Your task to perform on an android device: Show me the best rated 4K TV on Walmart. Image 0: 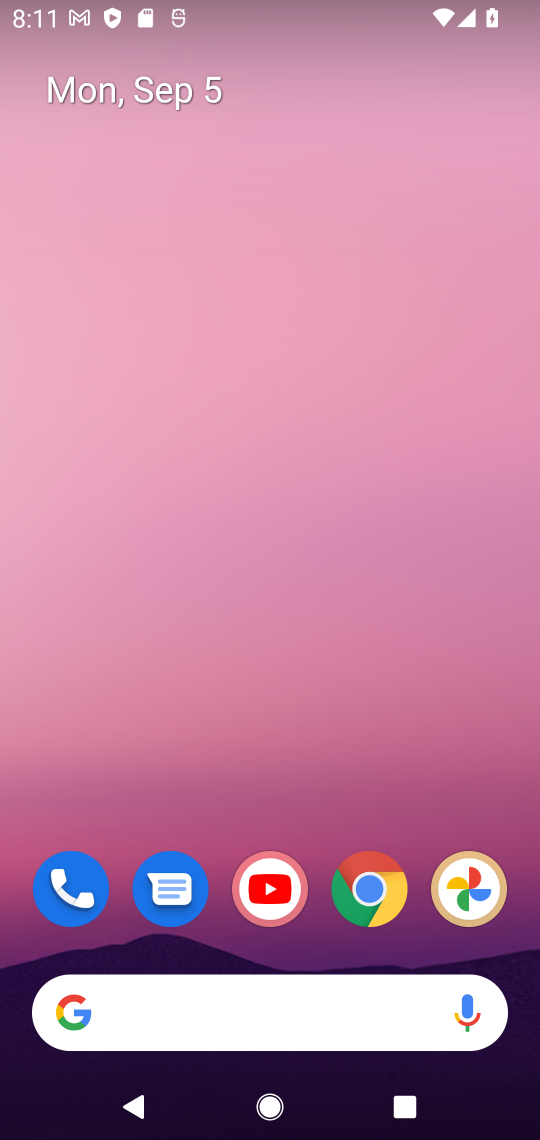
Step 0: click (209, 1005)
Your task to perform on an android device: Show me the best rated 4K TV on Walmart. Image 1: 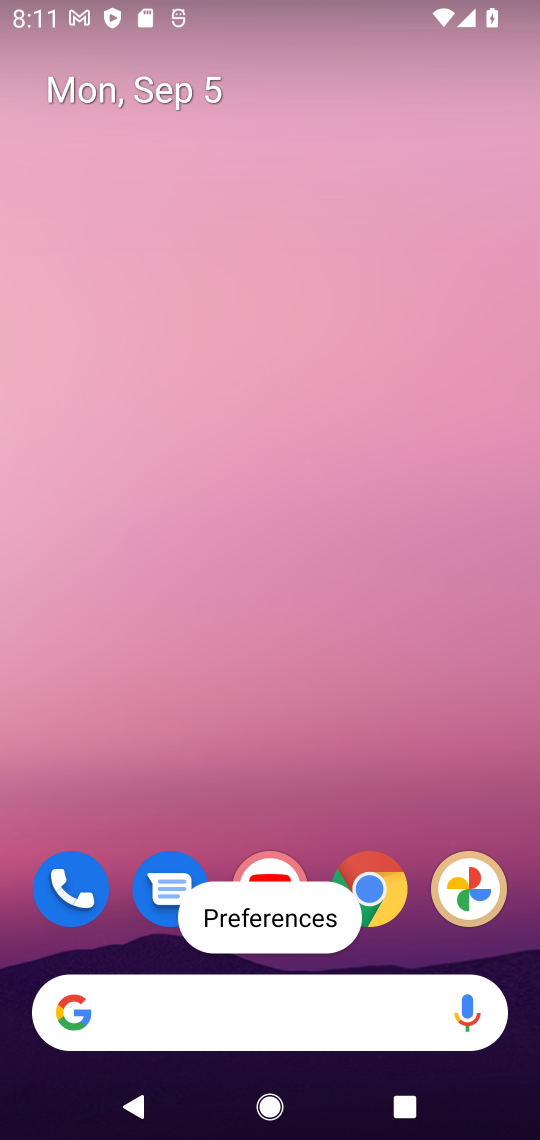
Step 1: click (197, 1025)
Your task to perform on an android device: Show me the best rated 4K TV on Walmart. Image 2: 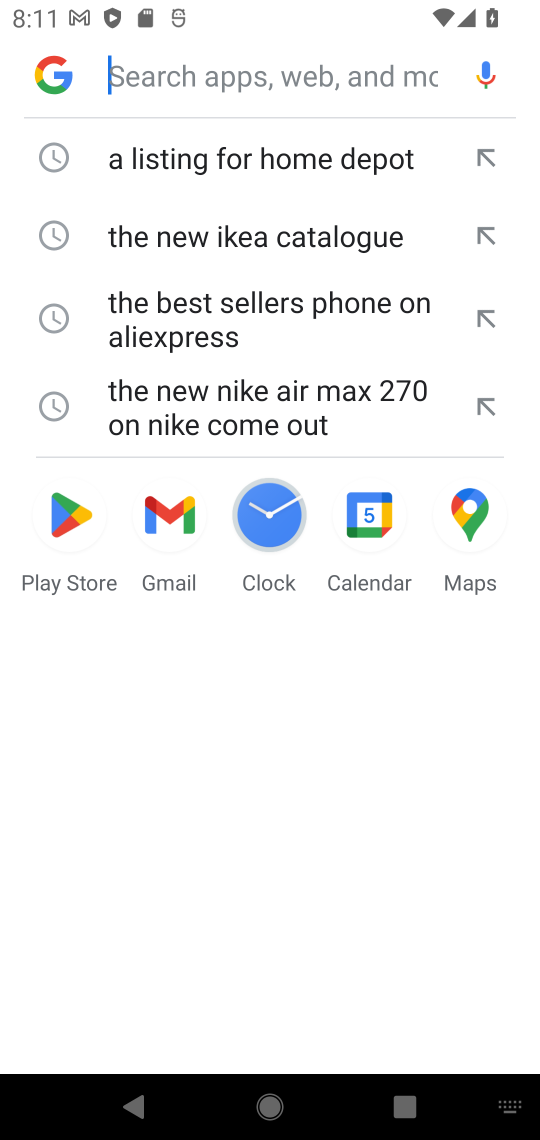
Step 2: type "4K TV on Walmart"
Your task to perform on an android device: Show me the best rated 4K TV on Walmart. Image 3: 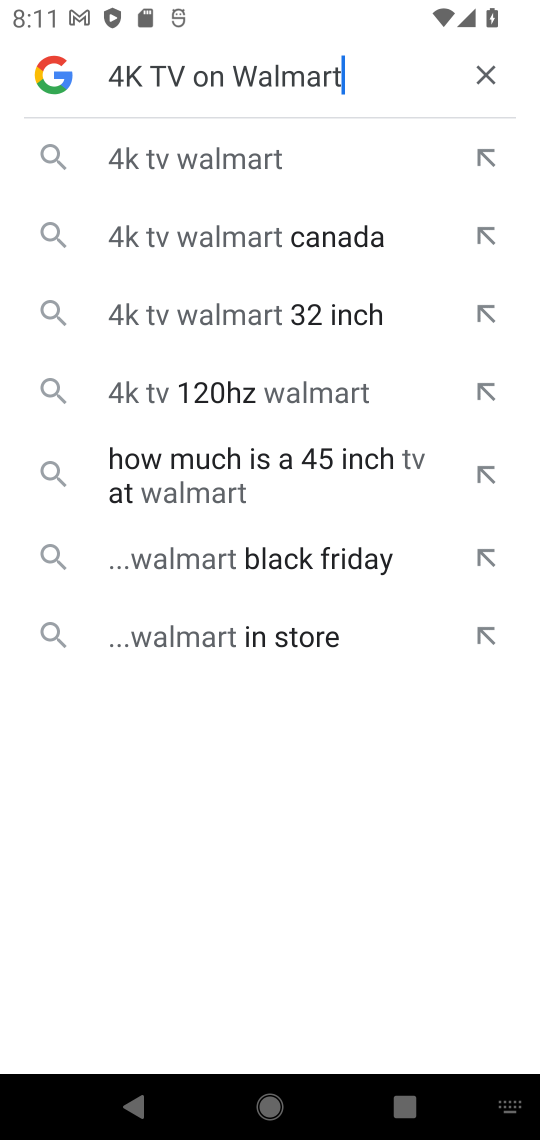
Step 3: click (231, 155)
Your task to perform on an android device: Show me the best rated 4K TV on Walmart. Image 4: 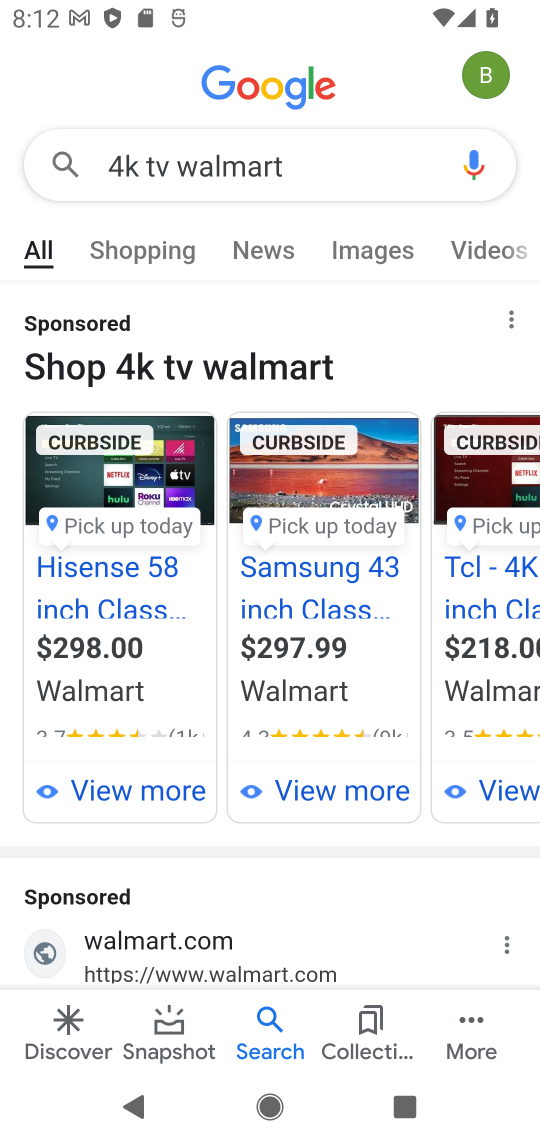
Step 4: task complete